Your task to perform on an android device: toggle notifications settings in the gmail app Image 0: 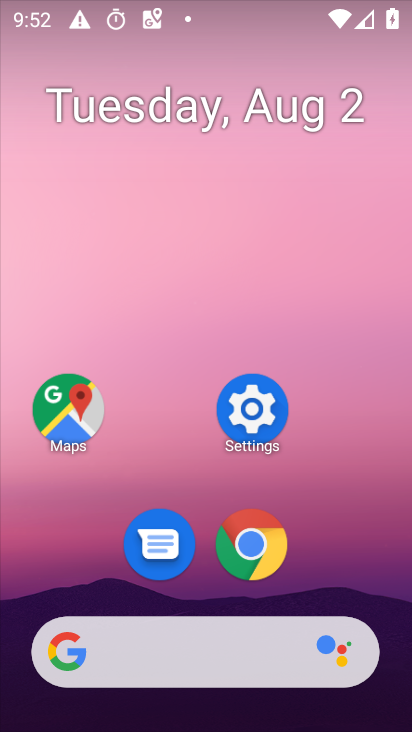
Step 0: press home button
Your task to perform on an android device: toggle notifications settings in the gmail app Image 1: 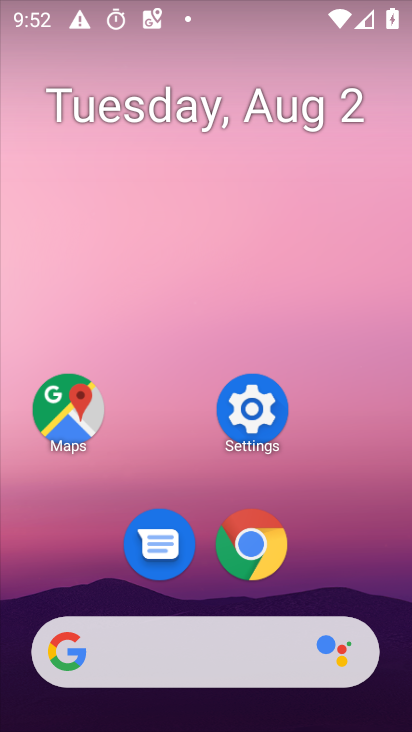
Step 1: drag from (203, 621) to (257, 114)
Your task to perform on an android device: toggle notifications settings in the gmail app Image 2: 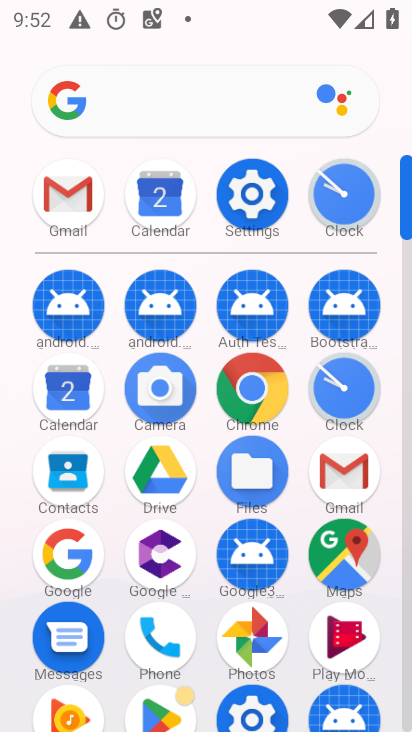
Step 2: click (71, 200)
Your task to perform on an android device: toggle notifications settings in the gmail app Image 3: 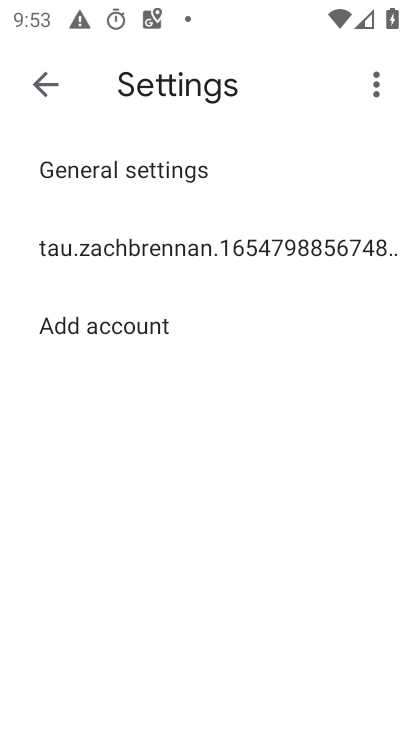
Step 3: click (151, 246)
Your task to perform on an android device: toggle notifications settings in the gmail app Image 4: 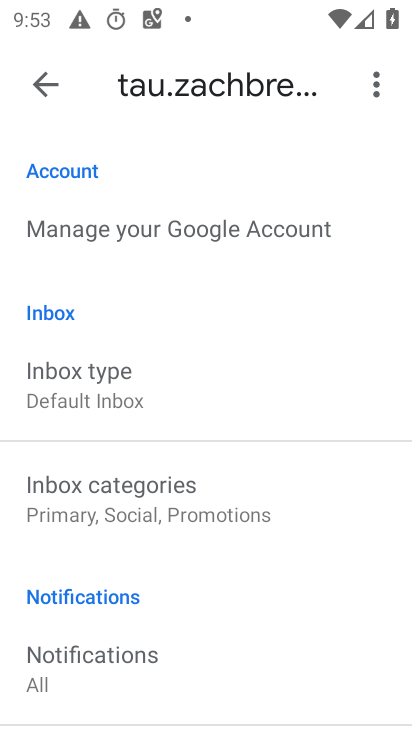
Step 4: drag from (176, 554) to (256, 322)
Your task to perform on an android device: toggle notifications settings in the gmail app Image 5: 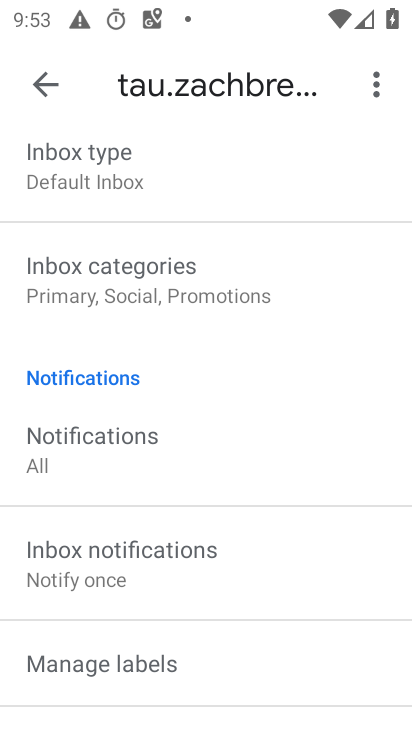
Step 5: click (82, 440)
Your task to perform on an android device: toggle notifications settings in the gmail app Image 6: 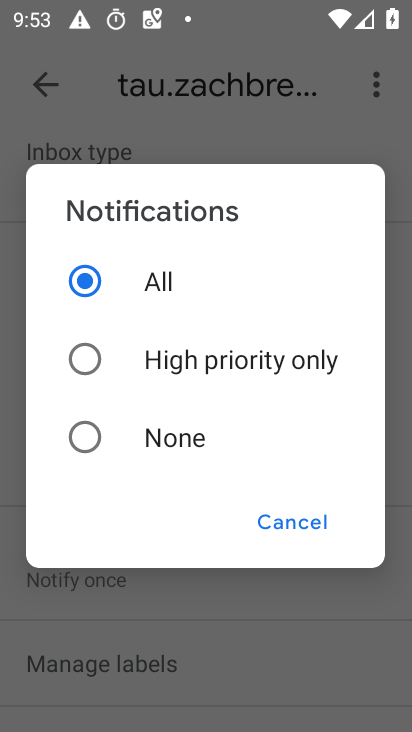
Step 6: click (87, 428)
Your task to perform on an android device: toggle notifications settings in the gmail app Image 7: 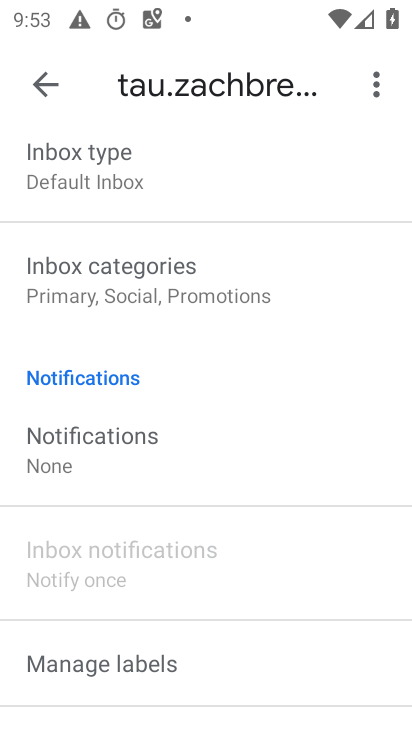
Step 7: task complete